Your task to perform on an android device: Open the calendar and show me this week's events? Image 0: 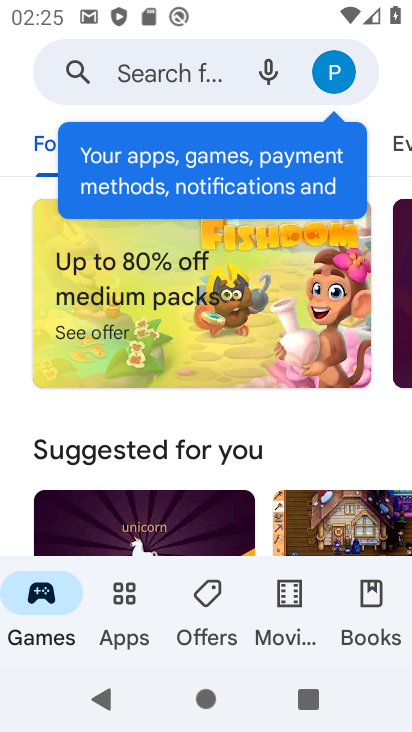
Step 0: press home button
Your task to perform on an android device: Open the calendar and show me this week's events? Image 1: 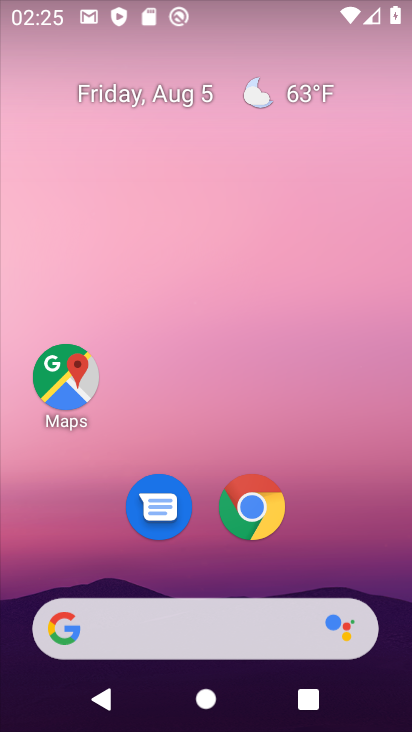
Step 1: drag from (177, 576) to (207, 61)
Your task to perform on an android device: Open the calendar and show me this week's events? Image 2: 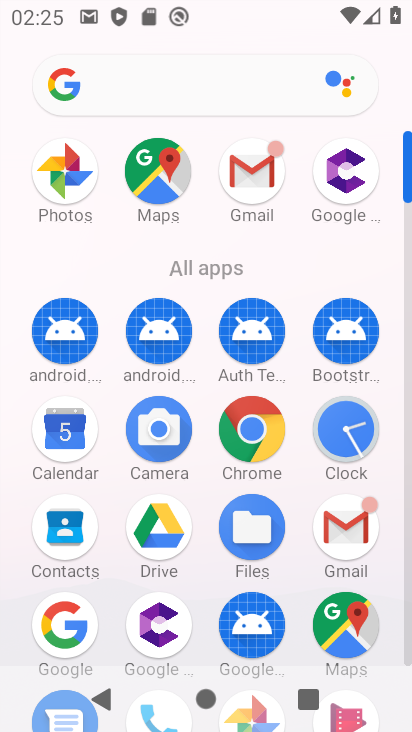
Step 2: click (58, 442)
Your task to perform on an android device: Open the calendar and show me this week's events? Image 3: 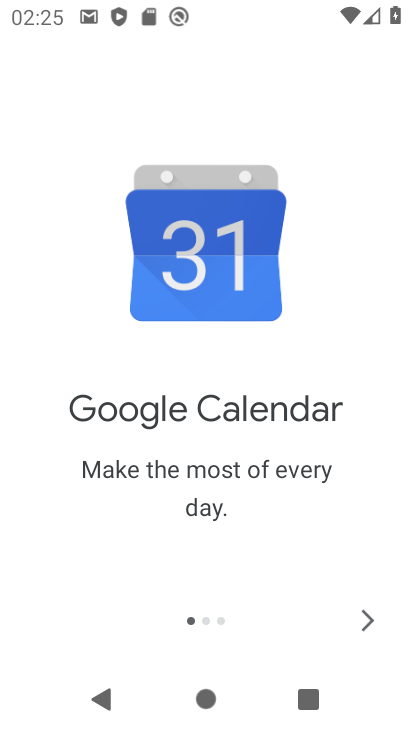
Step 3: click (358, 613)
Your task to perform on an android device: Open the calendar and show me this week's events? Image 4: 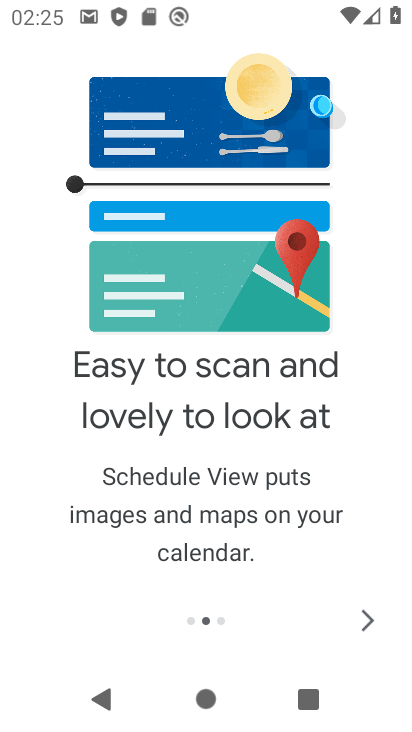
Step 4: click (359, 613)
Your task to perform on an android device: Open the calendar and show me this week's events? Image 5: 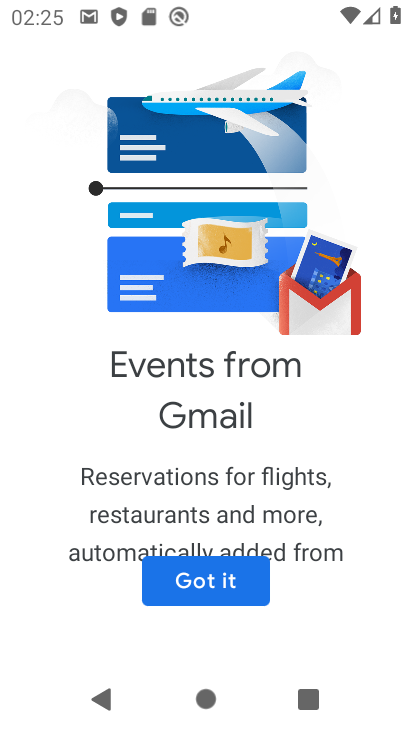
Step 5: click (229, 581)
Your task to perform on an android device: Open the calendar and show me this week's events? Image 6: 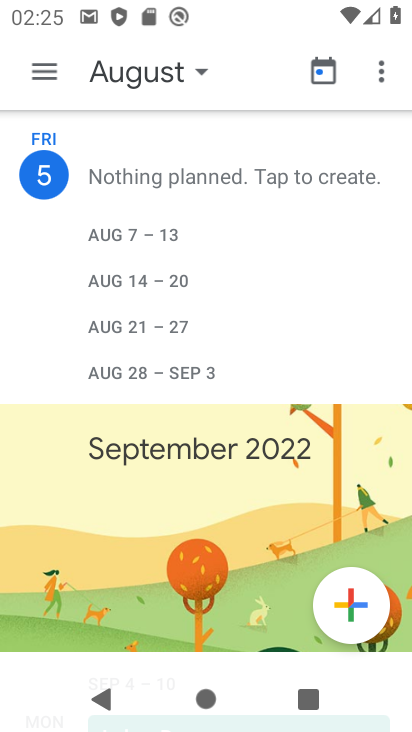
Step 6: click (31, 70)
Your task to perform on an android device: Open the calendar and show me this week's events? Image 7: 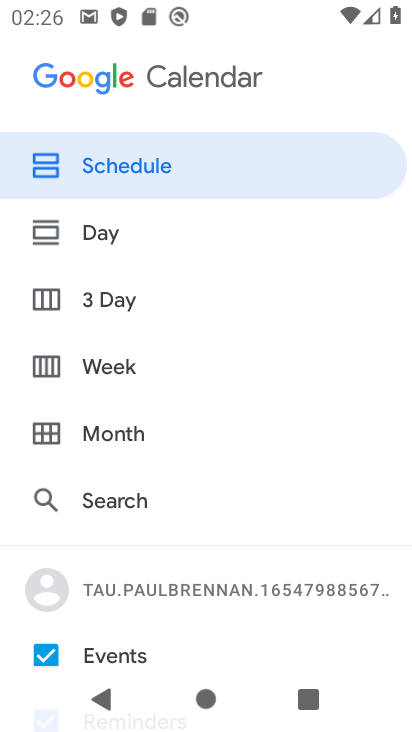
Step 7: drag from (110, 550) to (140, 307)
Your task to perform on an android device: Open the calendar and show me this week's events? Image 8: 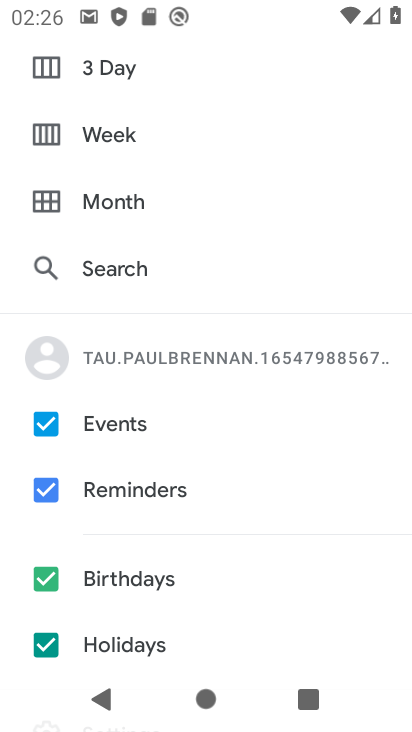
Step 8: click (73, 486)
Your task to perform on an android device: Open the calendar and show me this week's events? Image 9: 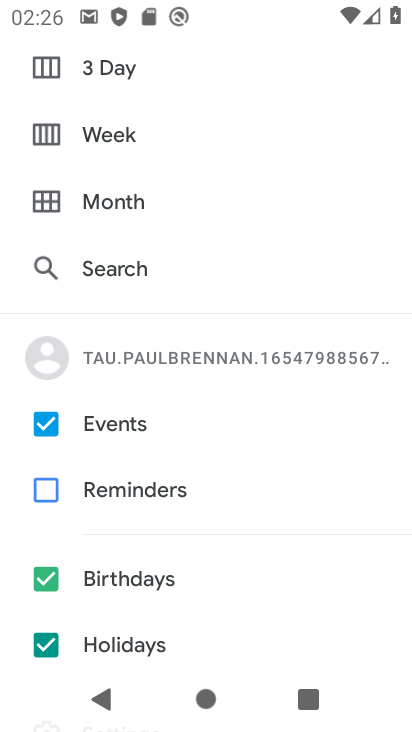
Step 9: click (49, 580)
Your task to perform on an android device: Open the calendar and show me this week's events? Image 10: 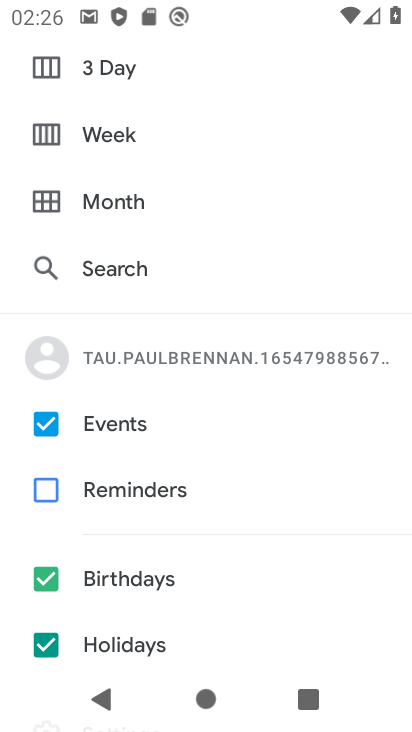
Step 10: drag from (121, 617) to (124, 544)
Your task to perform on an android device: Open the calendar and show me this week's events? Image 11: 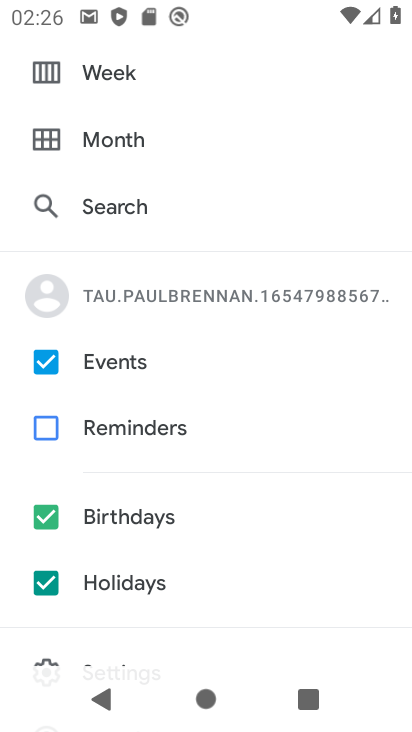
Step 11: click (79, 587)
Your task to perform on an android device: Open the calendar and show me this week's events? Image 12: 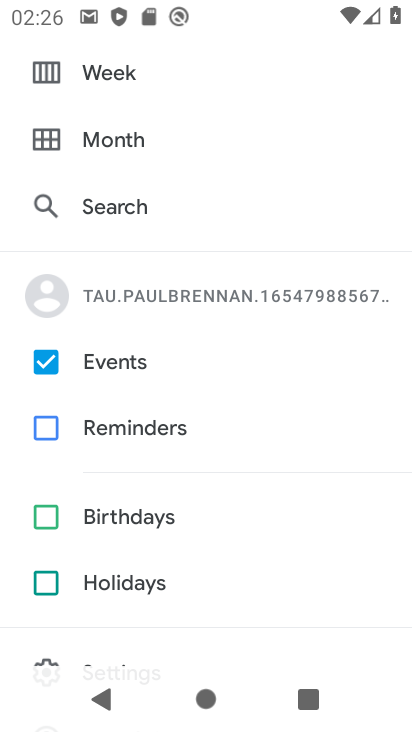
Step 12: click (119, 75)
Your task to perform on an android device: Open the calendar and show me this week's events? Image 13: 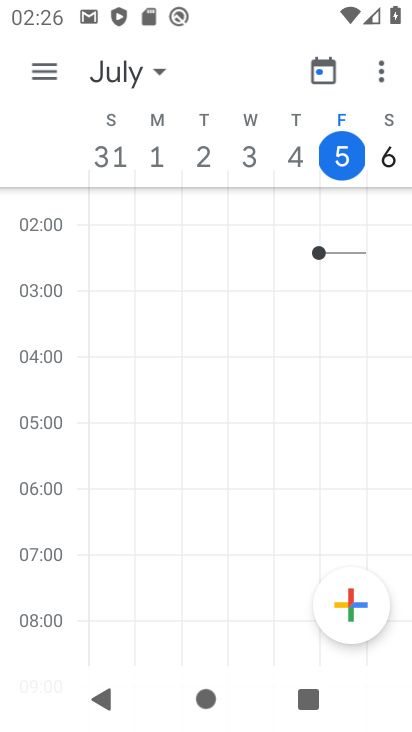
Step 13: task complete